Your task to perform on an android device: change the clock display to digital Image 0: 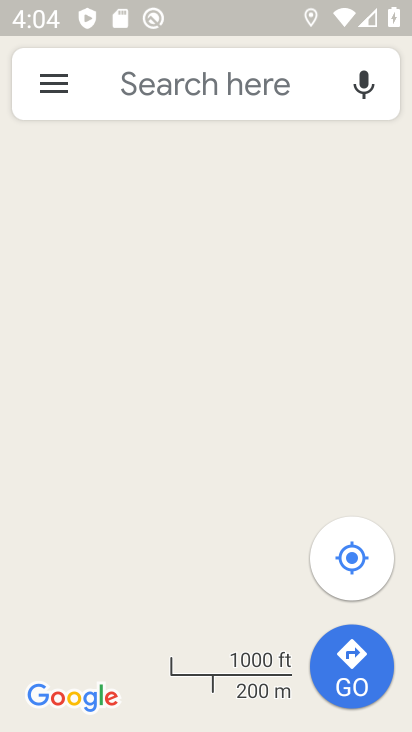
Step 0: press home button
Your task to perform on an android device: change the clock display to digital Image 1: 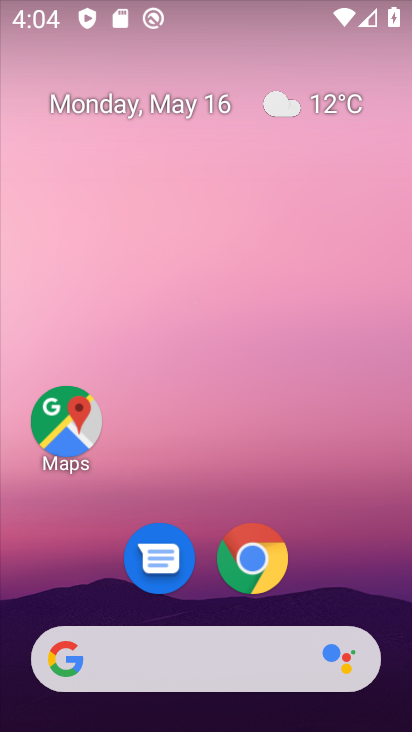
Step 1: drag from (360, 553) to (312, 155)
Your task to perform on an android device: change the clock display to digital Image 2: 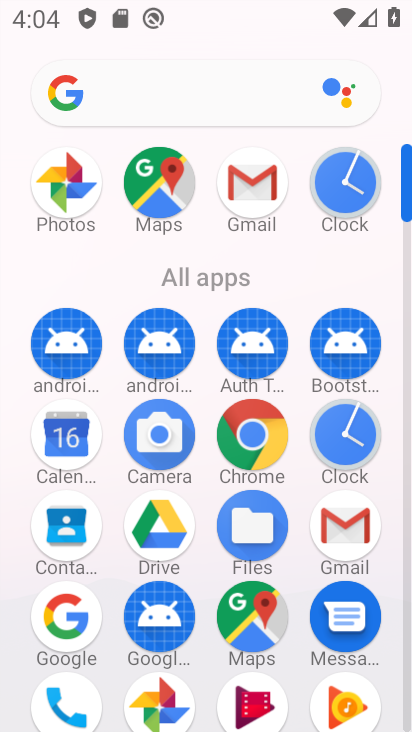
Step 2: click (339, 430)
Your task to perform on an android device: change the clock display to digital Image 3: 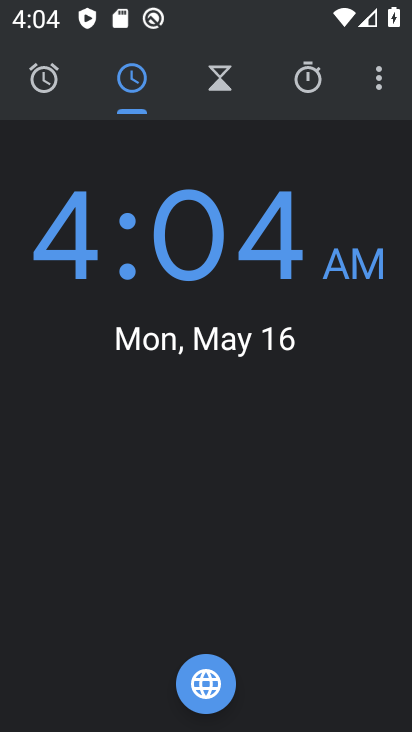
Step 3: click (380, 81)
Your task to perform on an android device: change the clock display to digital Image 4: 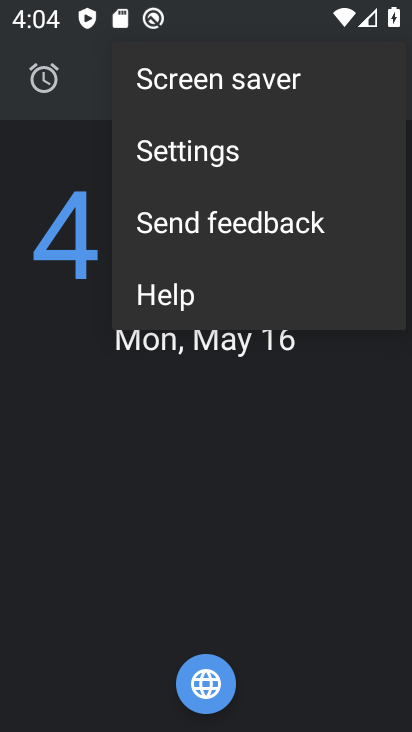
Step 4: click (289, 148)
Your task to perform on an android device: change the clock display to digital Image 5: 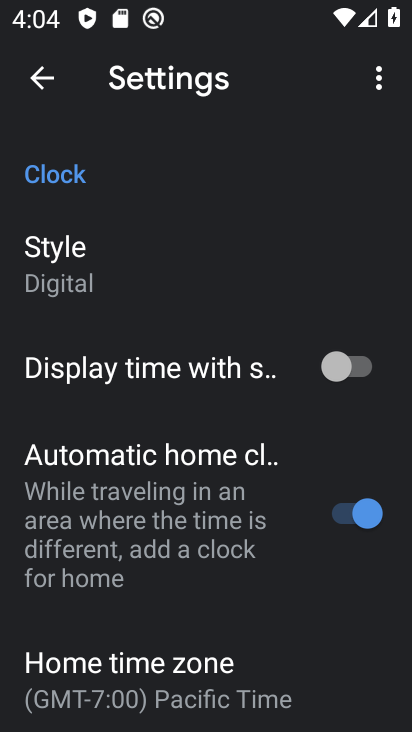
Step 5: task complete